Your task to perform on an android device: visit the assistant section in the google photos Image 0: 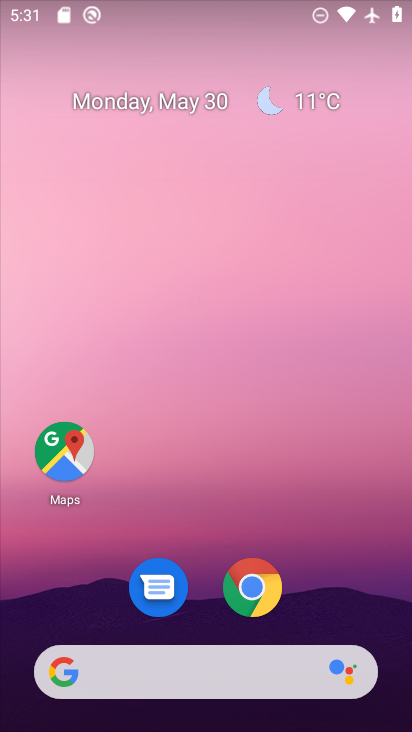
Step 0: drag from (312, 511) to (249, 40)
Your task to perform on an android device: visit the assistant section in the google photos Image 1: 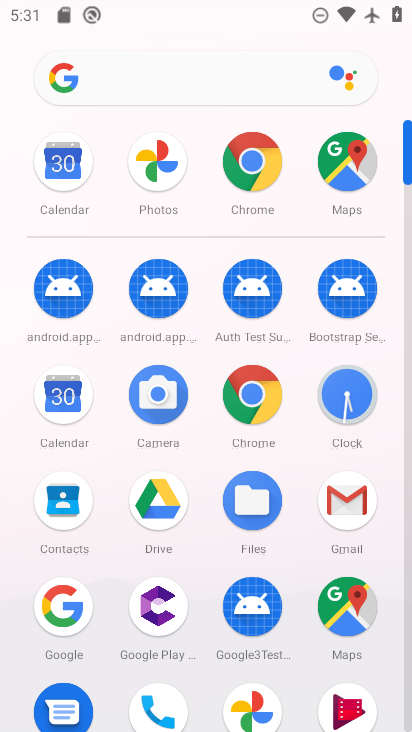
Step 1: drag from (8, 593) to (20, 256)
Your task to perform on an android device: visit the assistant section in the google photos Image 2: 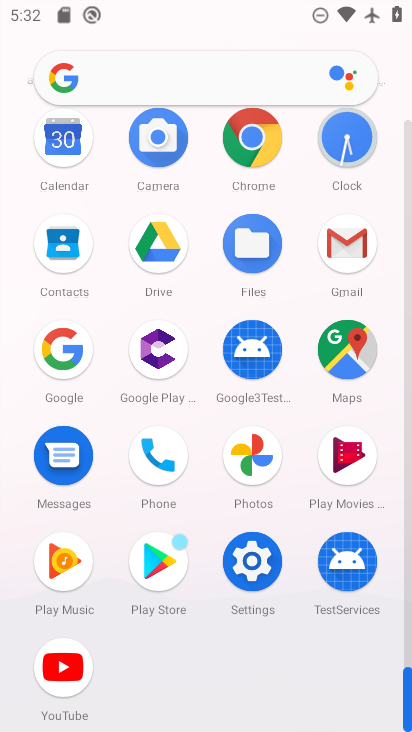
Step 2: click (248, 453)
Your task to perform on an android device: visit the assistant section in the google photos Image 3: 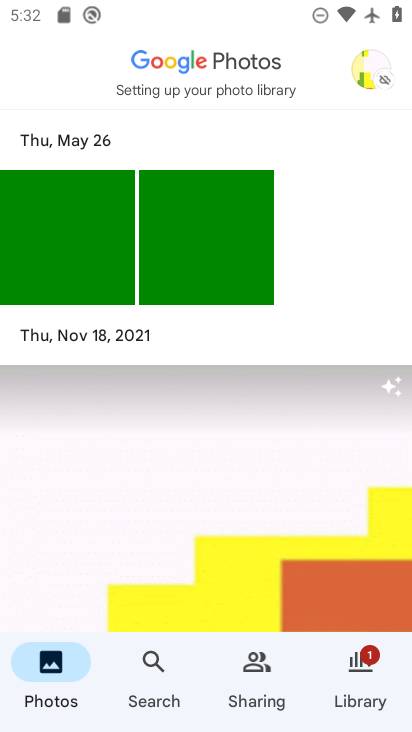
Step 3: task complete